Your task to perform on an android device: check battery use Image 0: 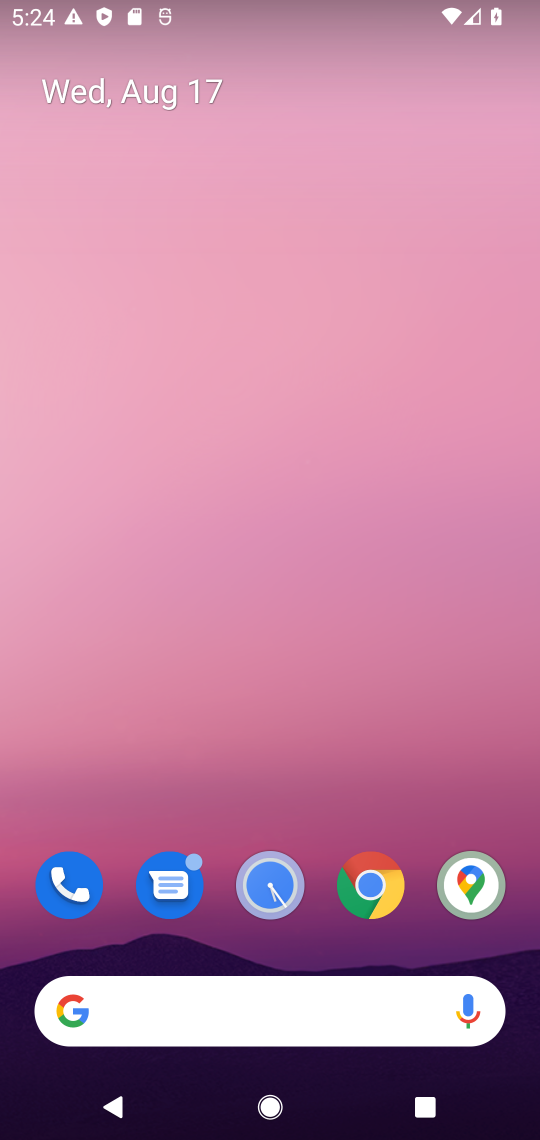
Step 0: drag from (375, 799) to (371, 224)
Your task to perform on an android device: check battery use Image 1: 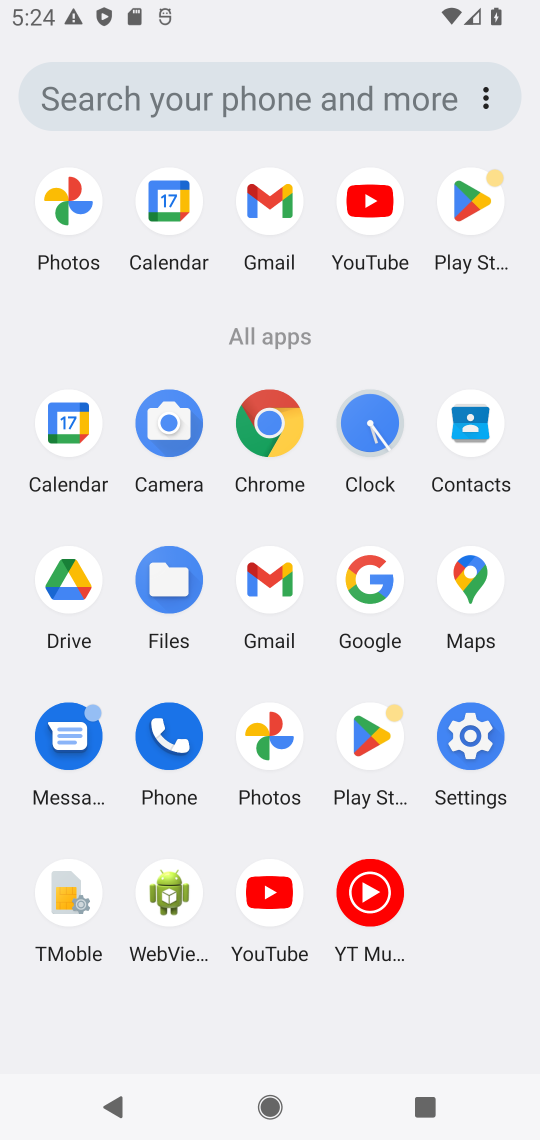
Step 1: click (477, 745)
Your task to perform on an android device: check battery use Image 2: 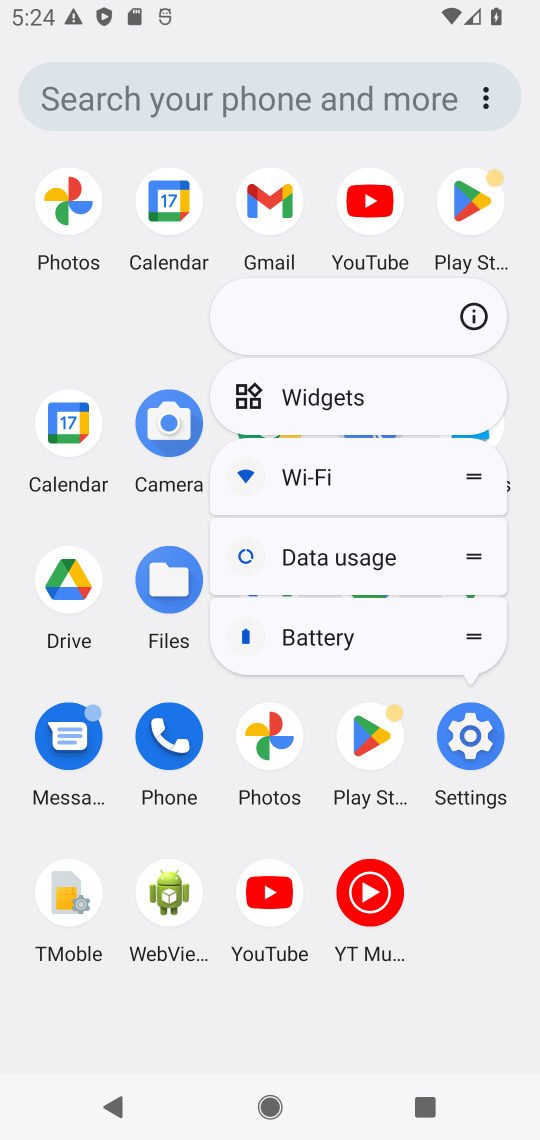
Step 2: click (477, 729)
Your task to perform on an android device: check battery use Image 3: 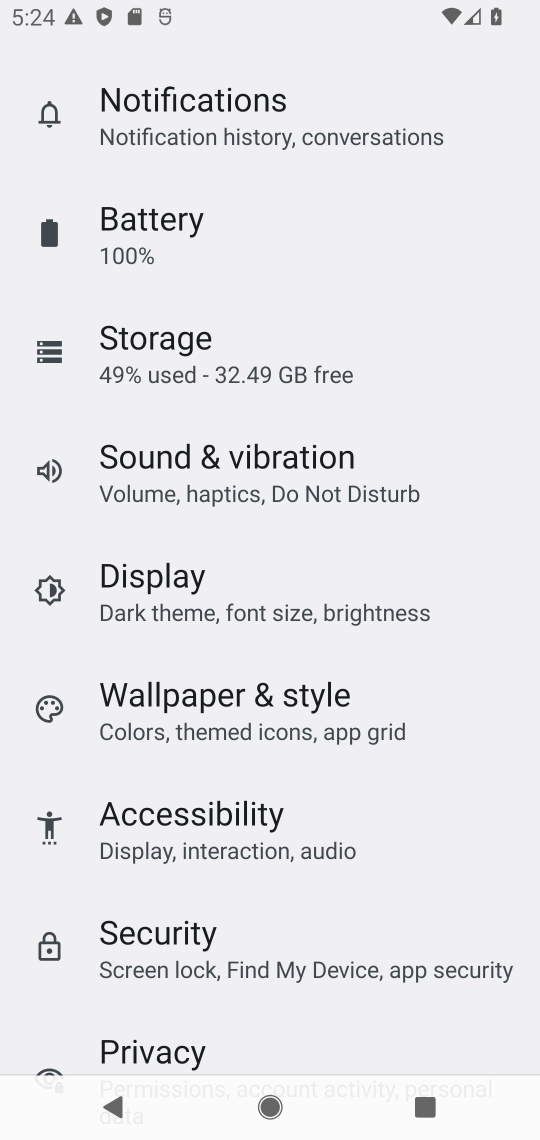
Step 3: click (169, 213)
Your task to perform on an android device: check battery use Image 4: 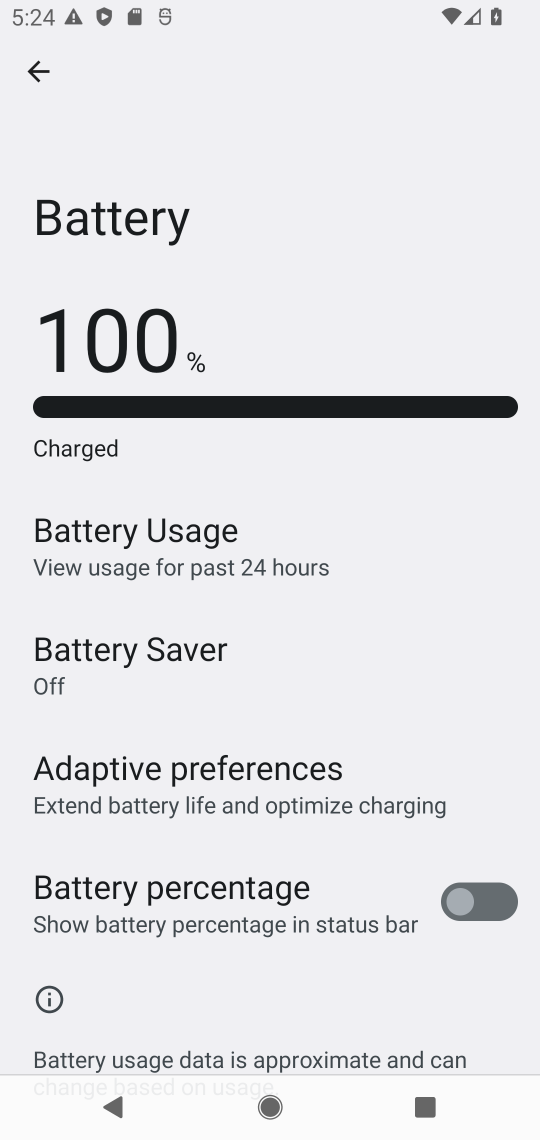
Step 4: click (218, 549)
Your task to perform on an android device: check battery use Image 5: 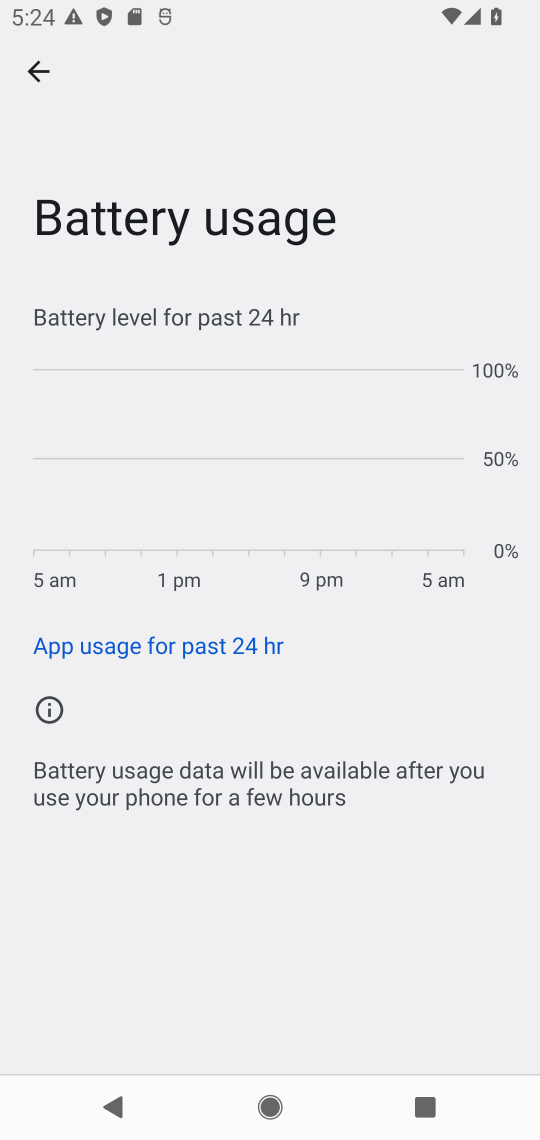
Step 5: task complete